Your task to perform on an android device: What is the speed of a train? Image 0: 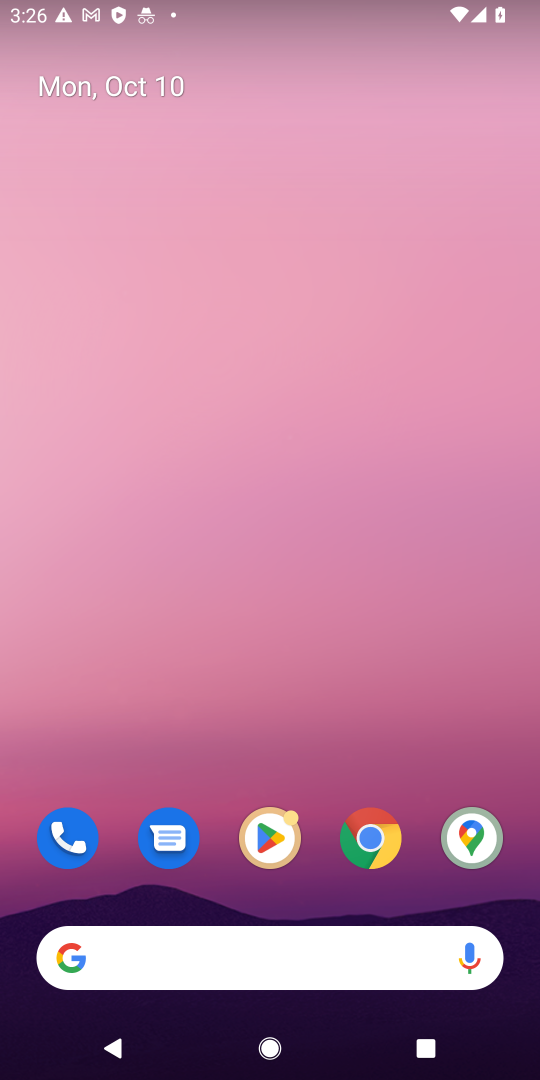
Step 0: click (375, 856)
Your task to perform on an android device: What is the speed of a train? Image 1: 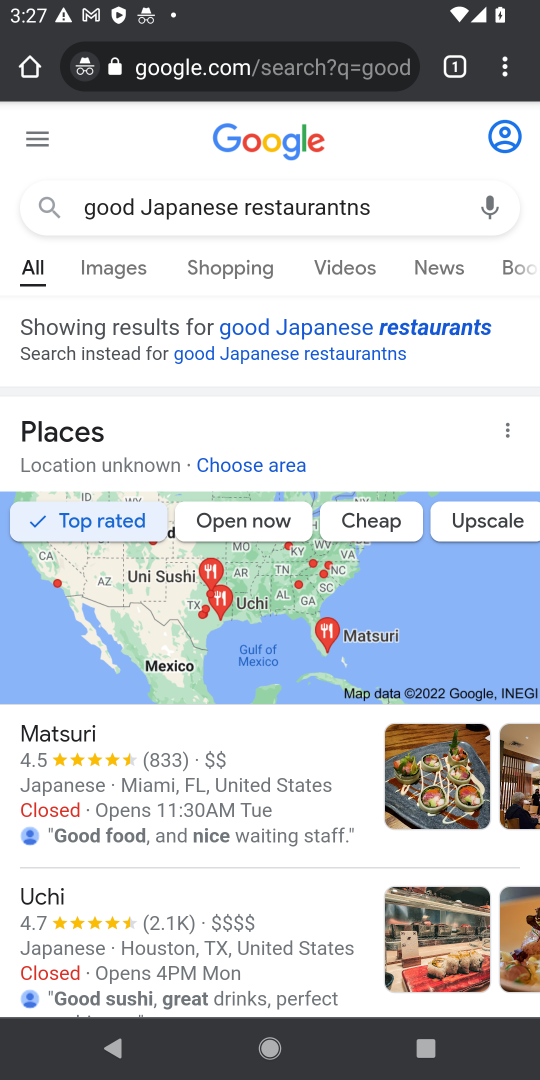
Step 1: click (237, 70)
Your task to perform on an android device: What is the speed of a train? Image 2: 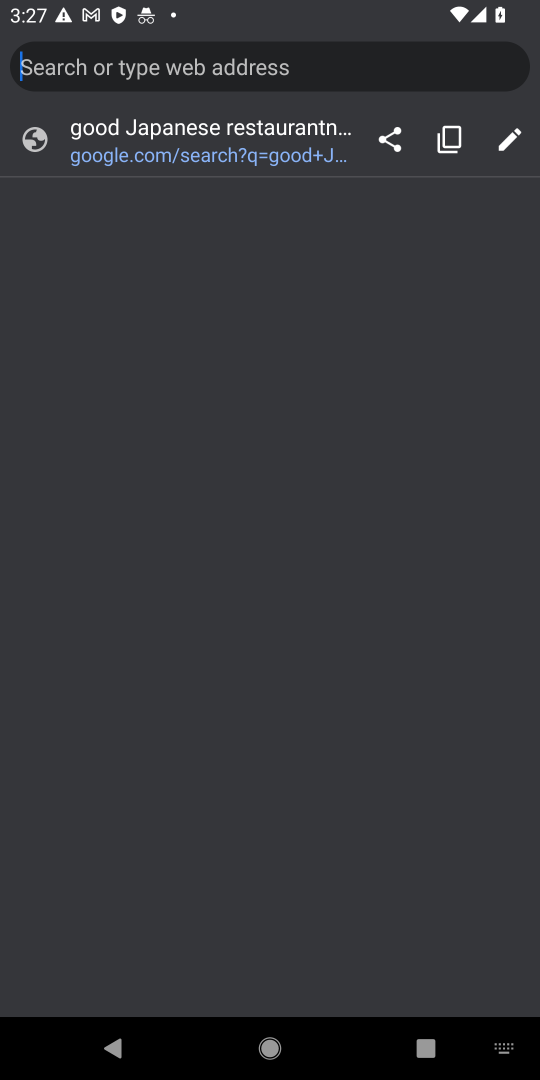
Step 2: type "What is the speed of a train?"
Your task to perform on an android device: What is the speed of a train? Image 3: 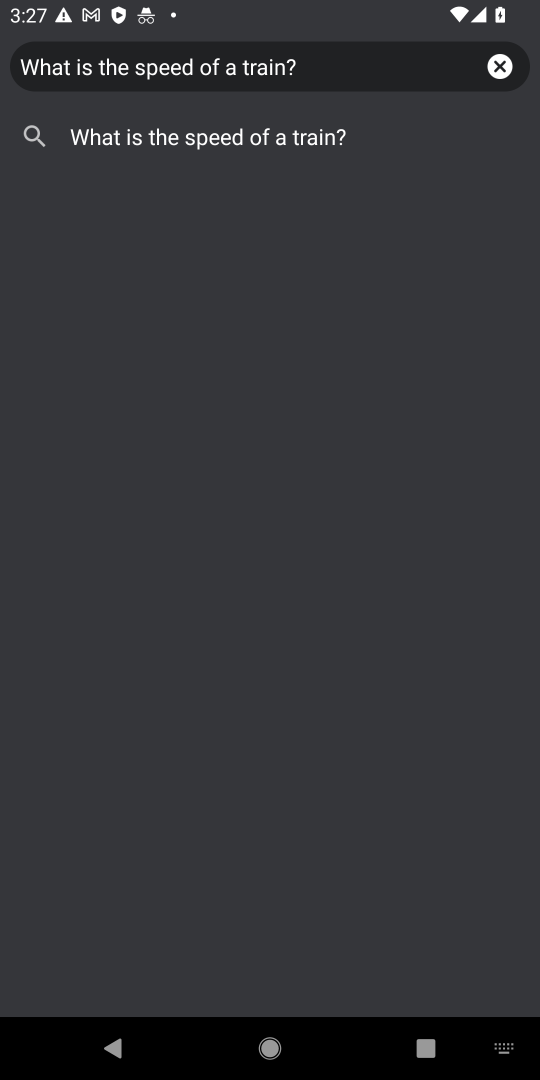
Step 3: click (402, 70)
Your task to perform on an android device: What is the speed of a train? Image 4: 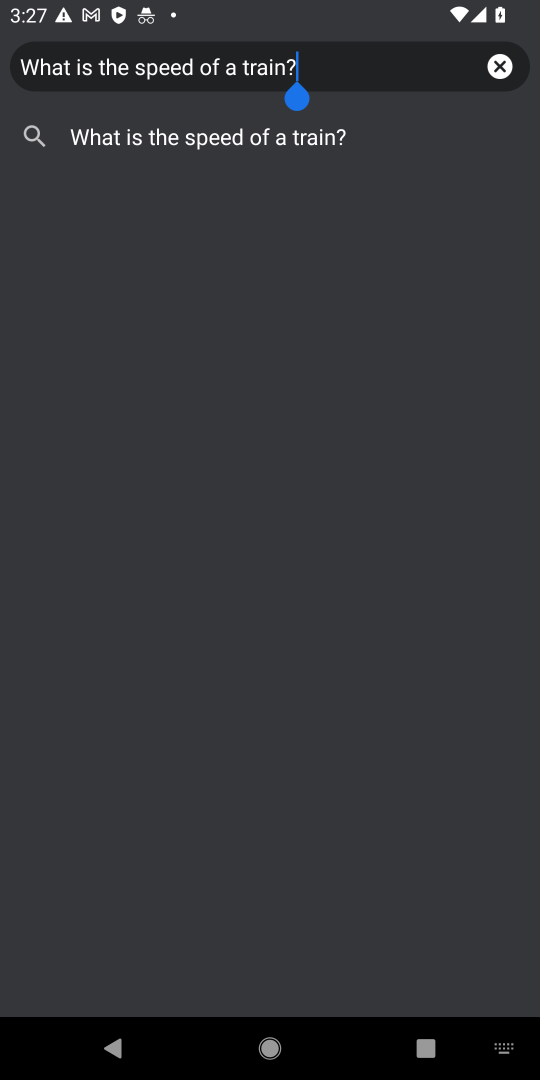
Step 4: click (267, 134)
Your task to perform on an android device: What is the speed of a train? Image 5: 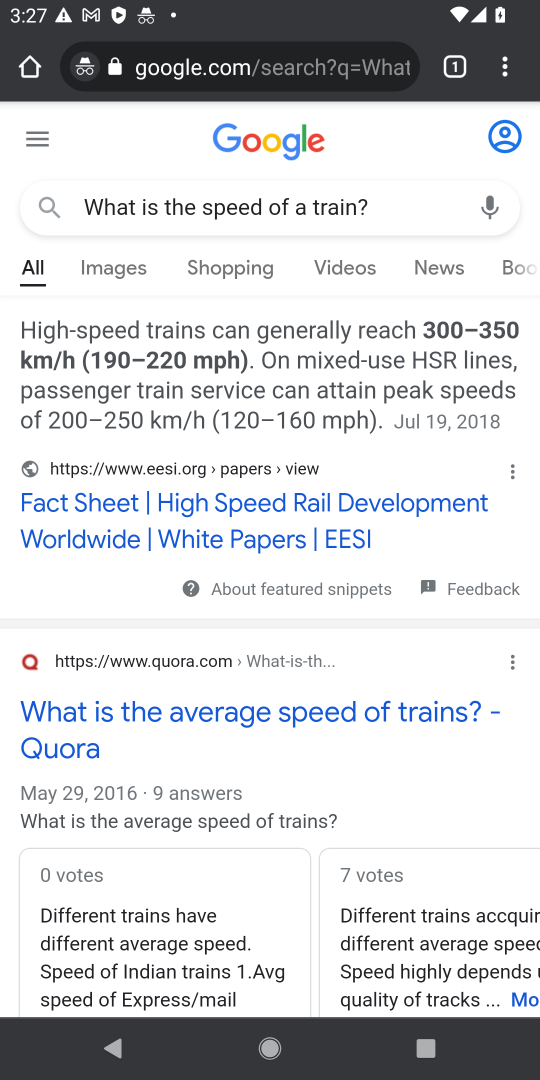
Step 5: task complete